Your task to perform on an android device: show emergency info Image 0: 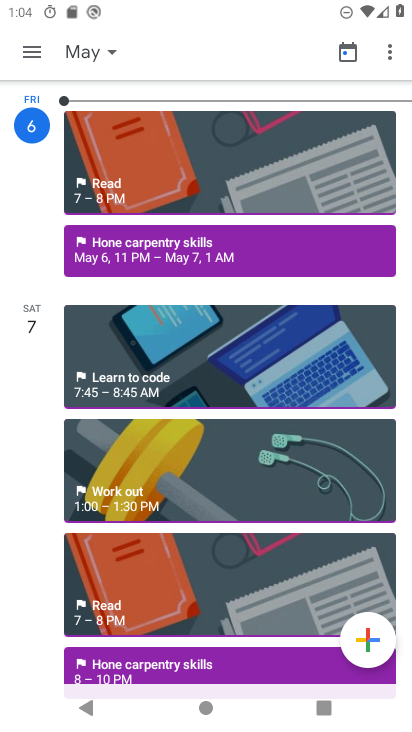
Step 0: press home button
Your task to perform on an android device: show emergency info Image 1: 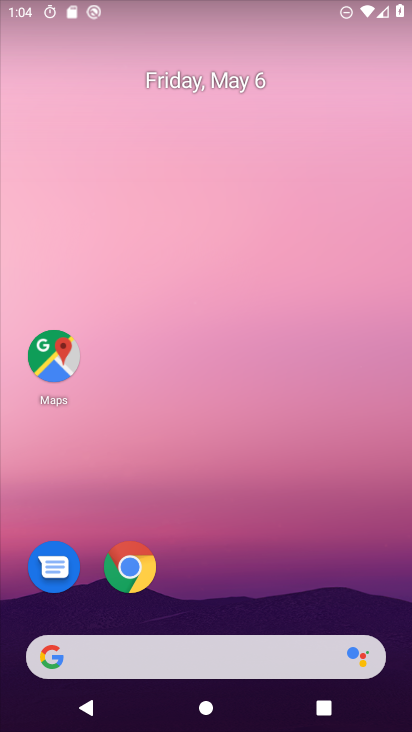
Step 1: drag from (280, 685) to (292, 270)
Your task to perform on an android device: show emergency info Image 2: 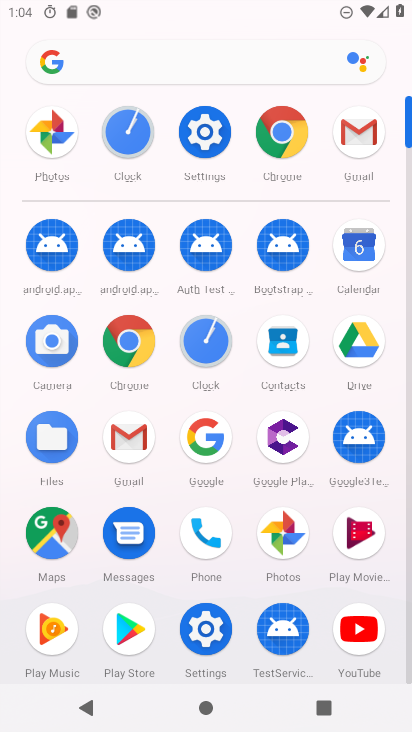
Step 2: click (210, 631)
Your task to perform on an android device: show emergency info Image 3: 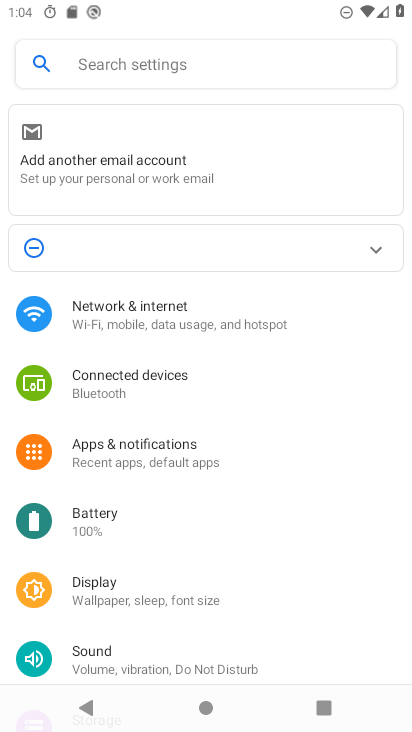
Step 3: click (161, 63)
Your task to perform on an android device: show emergency info Image 4: 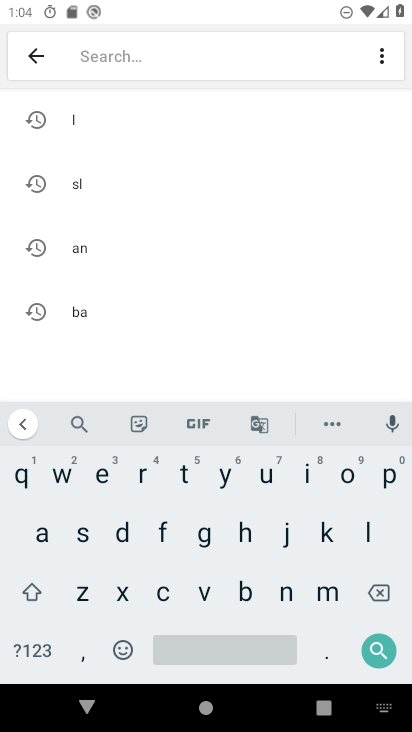
Step 4: click (99, 473)
Your task to perform on an android device: show emergency info Image 5: 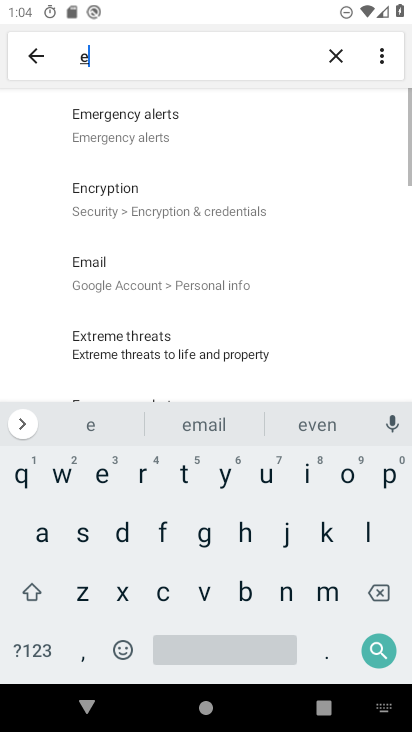
Step 5: click (334, 602)
Your task to perform on an android device: show emergency info Image 6: 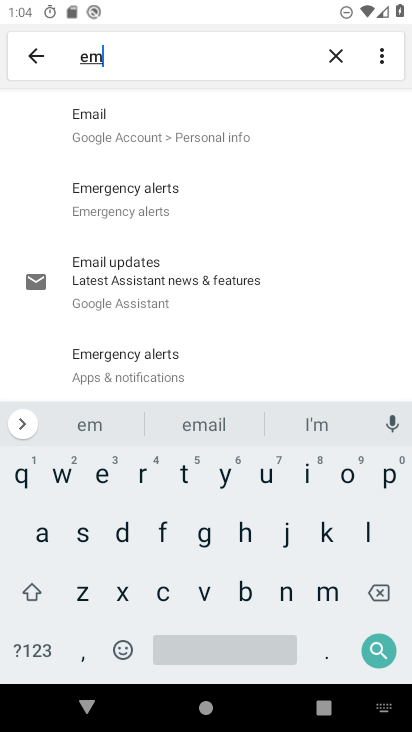
Step 6: click (105, 484)
Your task to perform on an android device: show emergency info Image 7: 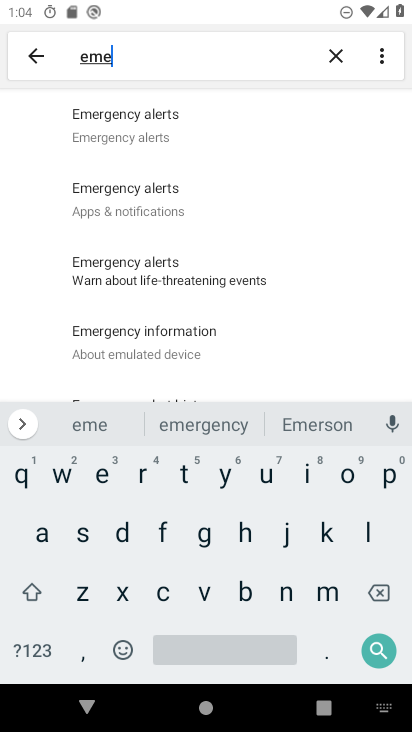
Step 7: click (146, 341)
Your task to perform on an android device: show emergency info Image 8: 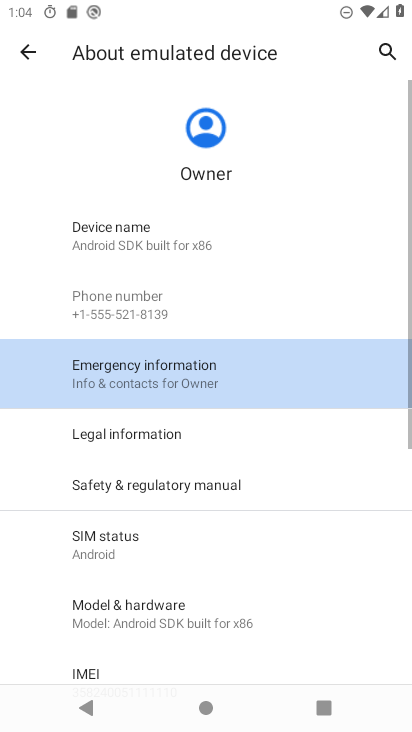
Step 8: click (146, 372)
Your task to perform on an android device: show emergency info Image 9: 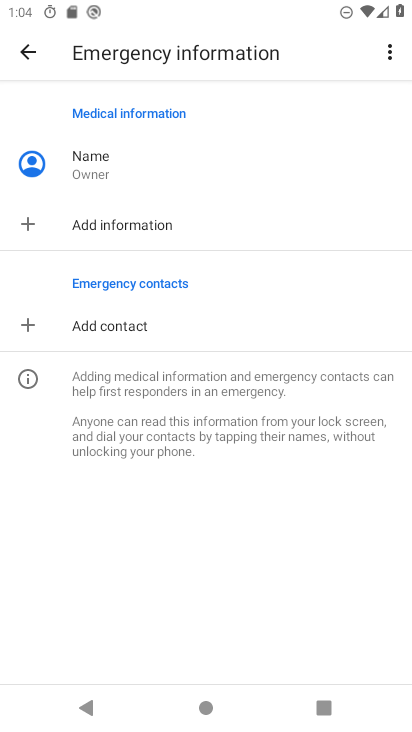
Step 9: task complete